Your task to perform on an android device: Open Google Chrome and open the bookmarks view Image 0: 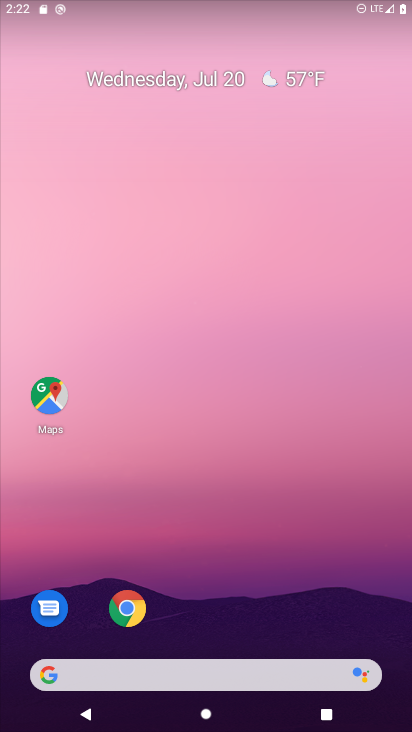
Step 0: click (130, 610)
Your task to perform on an android device: Open Google Chrome and open the bookmarks view Image 1: 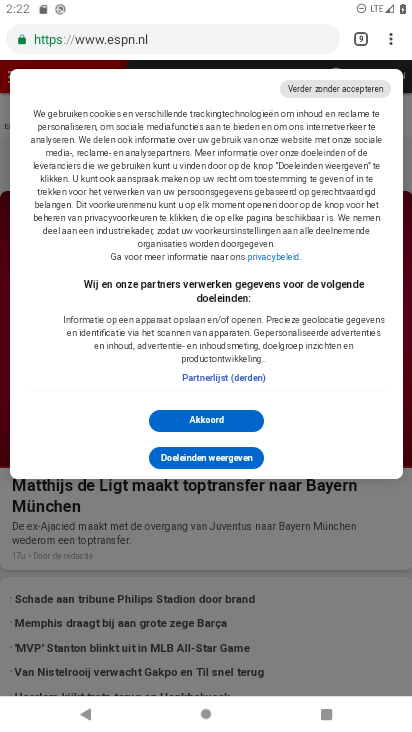
Step 1: click (390, 43)
Your task to perform on an android device: Open Google Chrome and open the bookmarks view Image 2: 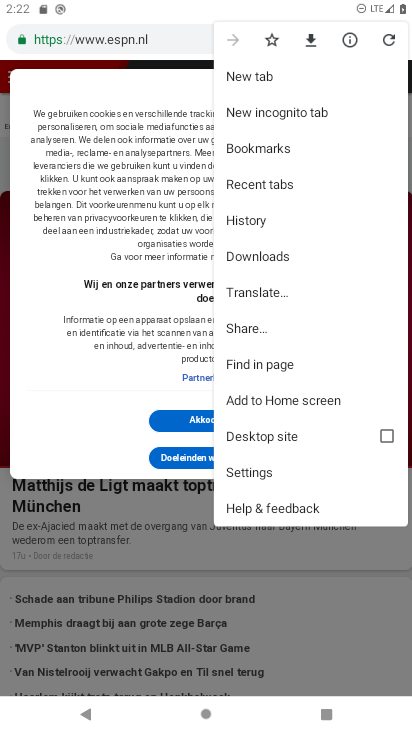
Step 2: click (255, 145)
Your task to perform on an android device: Open Google Chrome and open the bookmarks view Image 3: 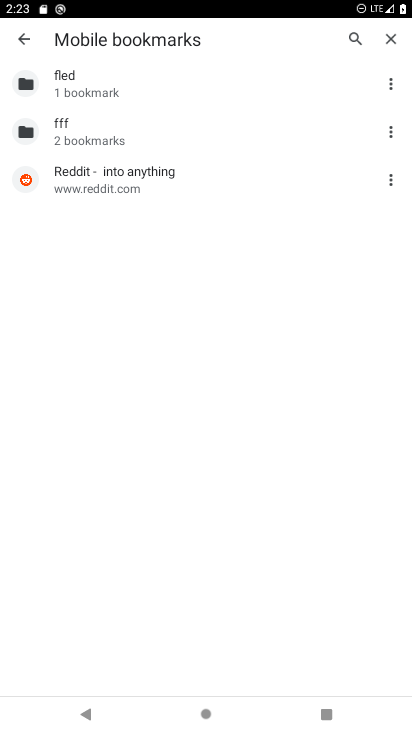
Step 3: task complete